Your task to perform on an android device: Go to wifi settings Image 0: 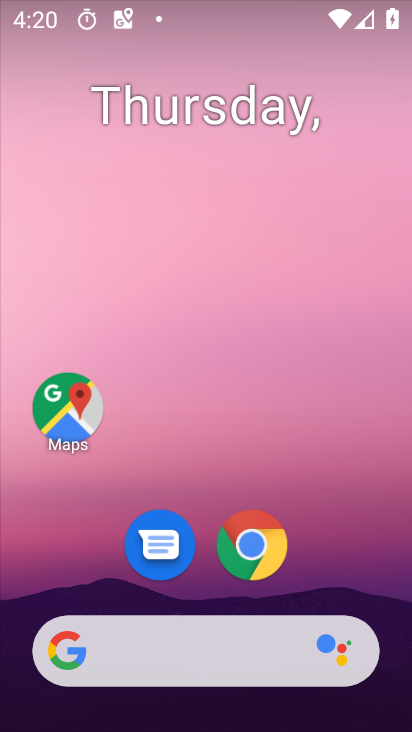
Step 0: drag from (214, 723) to (212, 183)
Your task to perform on an android device: Go to wifi settings Image 1: 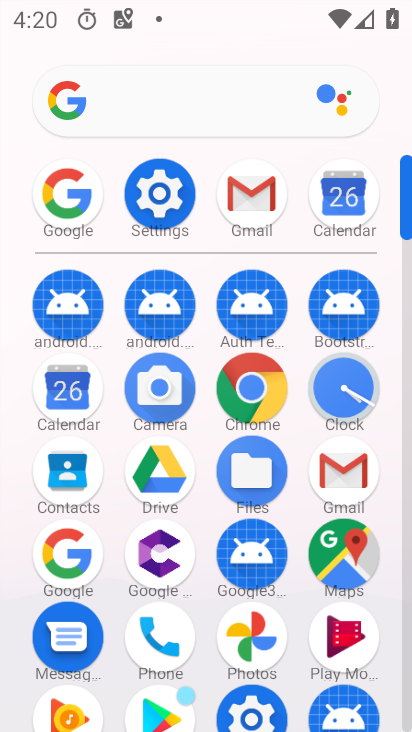
Step 1: click (151, 193)
Your task to perform on an android device: Go to wifi settings Image 2: 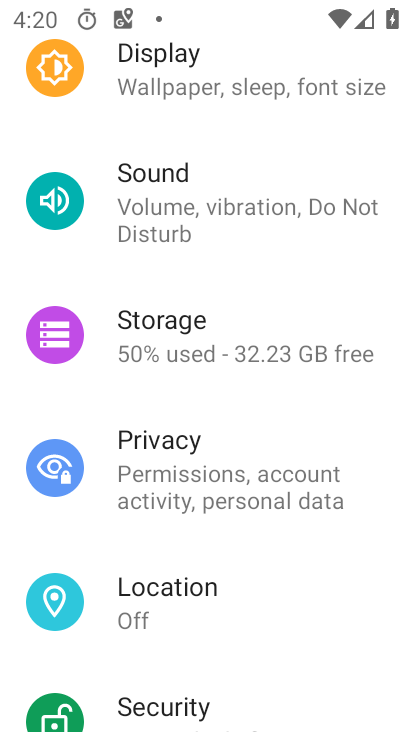
Step 2: drag from (215, 135) to (225, 587)
Your task to perform on an android device: Go to wifi settings Image 3: 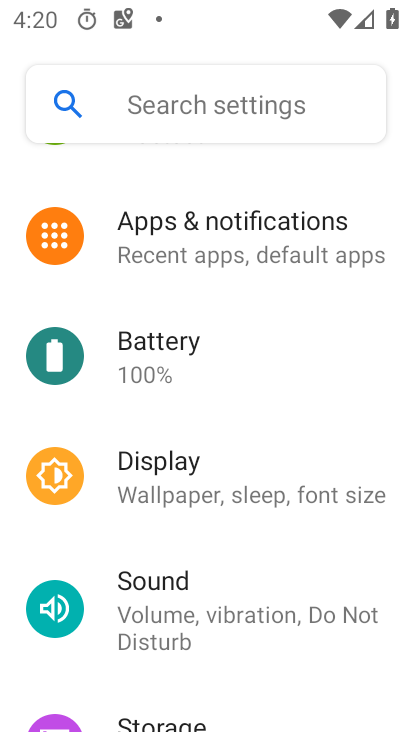
Step 3: drag from (225, 176) to (236, 557)
Your task to perform on an android device: Go to wifi settings Image 4: 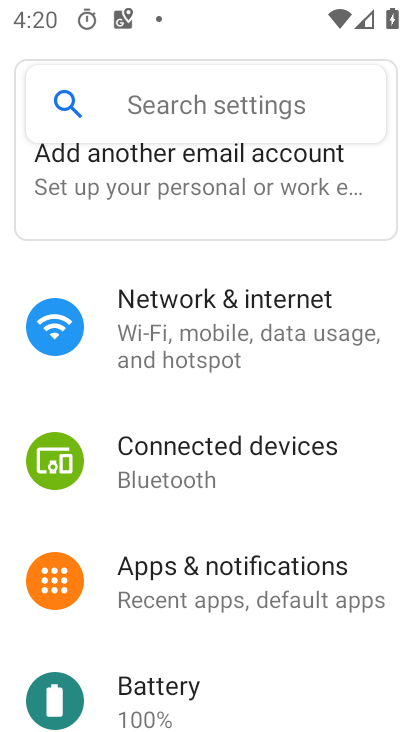
Step 4: drag from (246, 194) to (241, 610)
Your task to perform on an android device: Go to wifi settings Image 5: 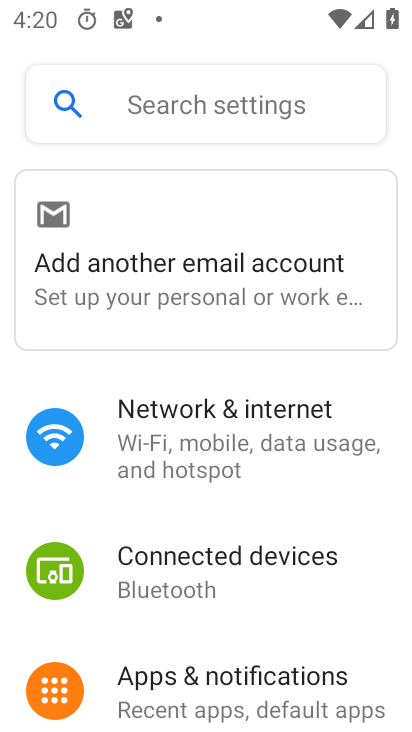
Step 5: click (183, 448)
Your task to perform on an android device: Go to wifi settings Image 6: 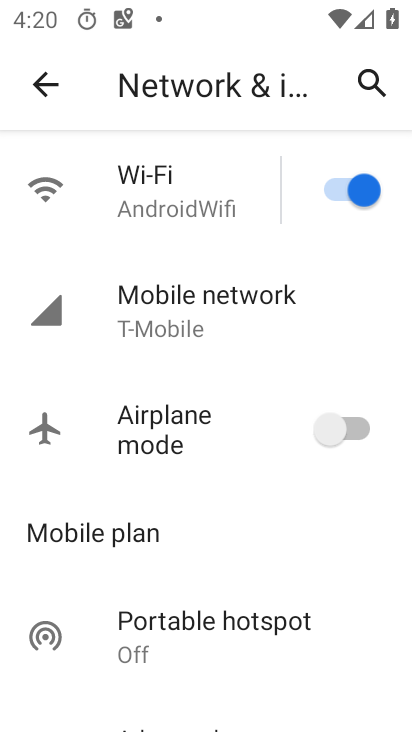
Step 6: click (151, 172)
Your task to perform on an android device: Go to wifi settings Image 7: 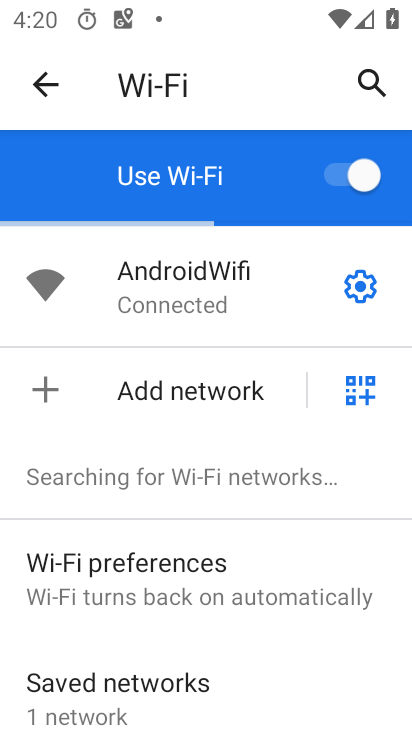
Step 7: task complete